Your task to perform on an android device: Clear all items from cart on amazon.com. Add "alienware aurora" to the cart on amazon.com, then select checkout. Image 0: 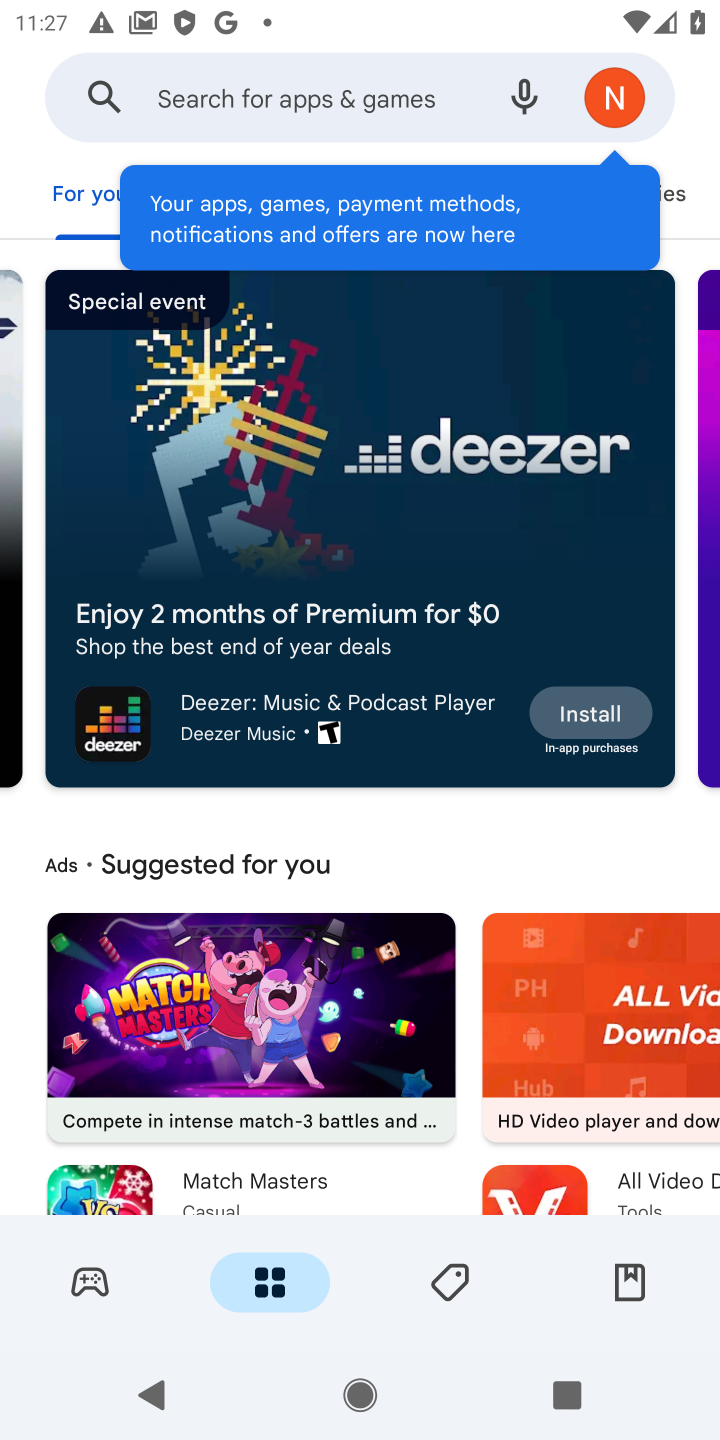
Step 0: press home button
Your task to perform on an android device: Clear all items from cart on amazon.com. Add "alienware aurora" to the cart on amazon.com, then select checkout. Image 1: 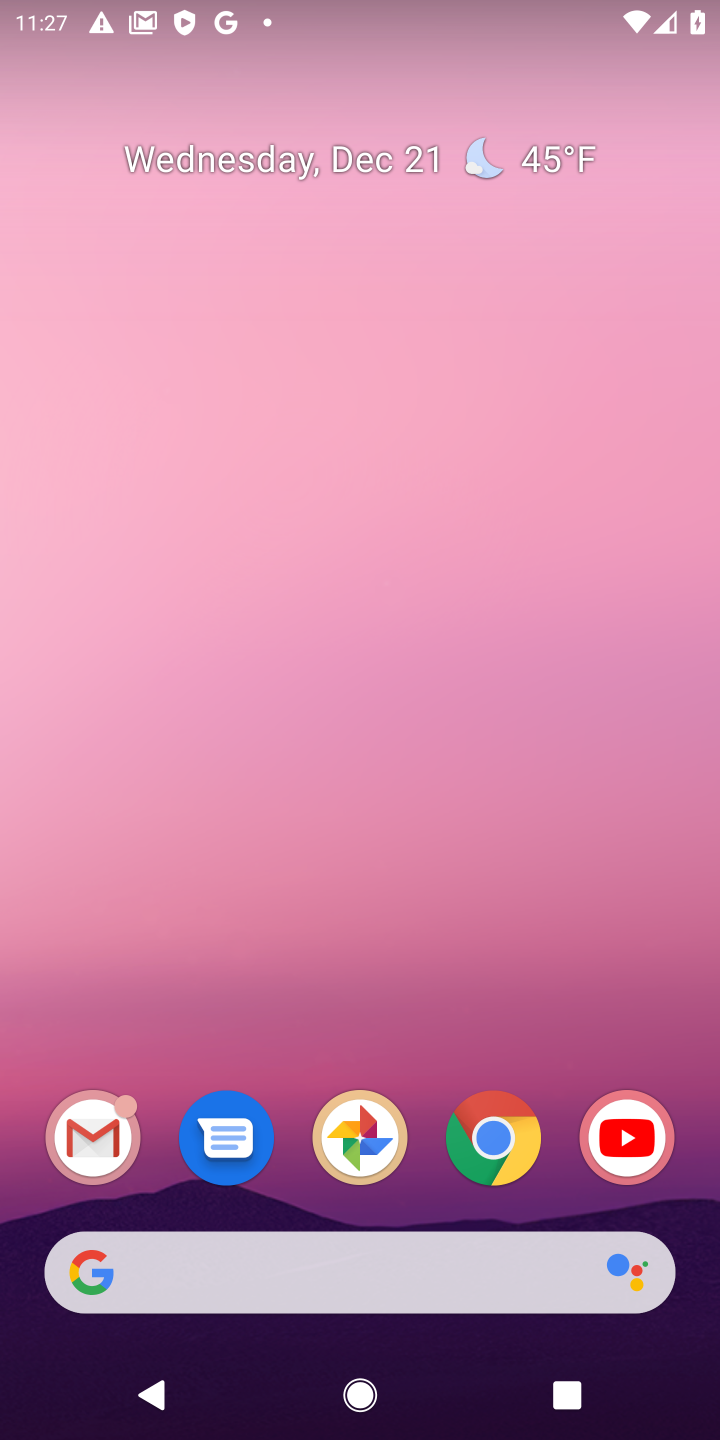
Step 1: click (508, 1137)
Your task to perform on an android device: Clear all items from cart on amazon.com. Add "alienware aurora" to the cart on amazon.com, then select checkout. Image 2: 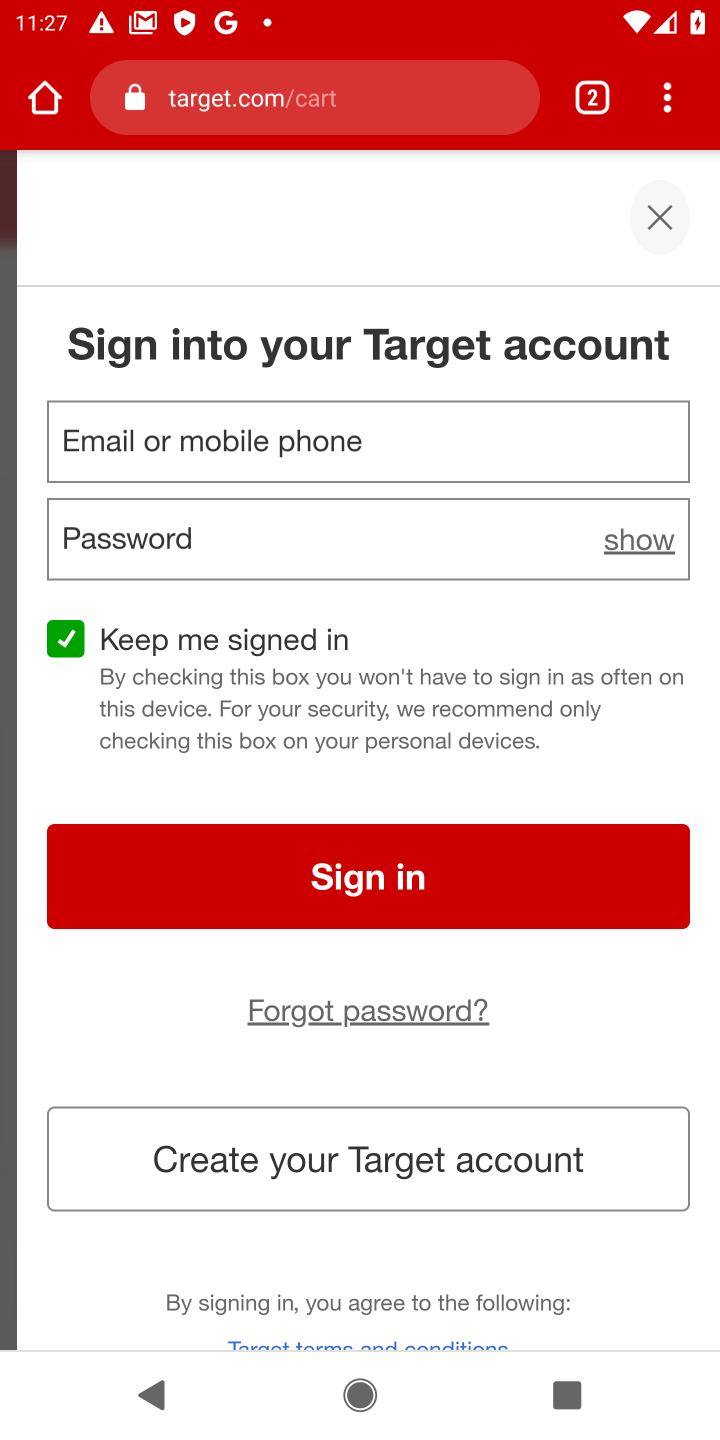
Step 2: click (242, 99)
Your task to perform on an android device: Clear all items from cart on amazon.com. Add "alienware aurora" to the cart on amazon.com, then select checkout. Image 3: 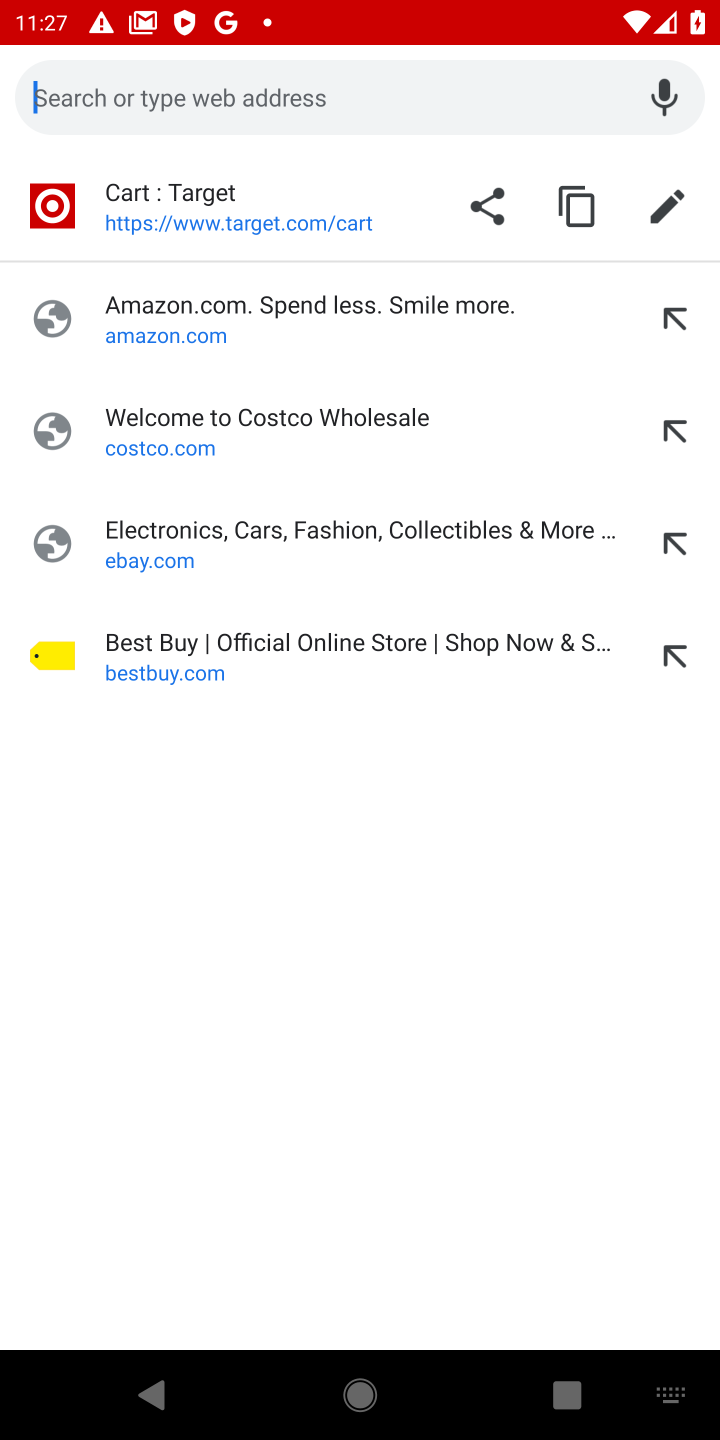
Step 3: click (187, 335)
Your task to perform on an android device: Clear all items from cart on amazon.com. Add "alienware aurora" to the cart on amazon.com, then select checkout. Image 4: 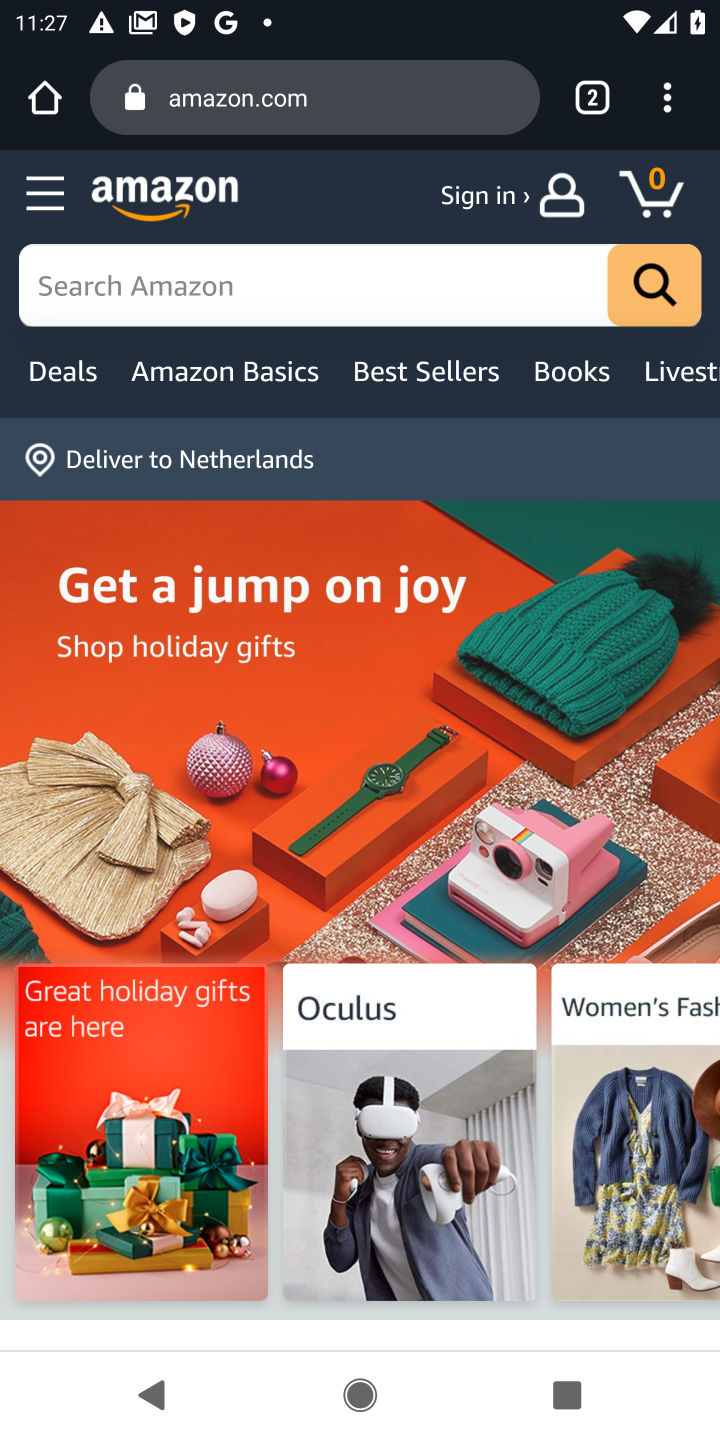
Step 4: click (662, 205)
Your task to perform on an android device: Clear all items from cart on amazon.com. Add "alienware aurora" to the cart on amazon.com, then select checkout. Image 5: 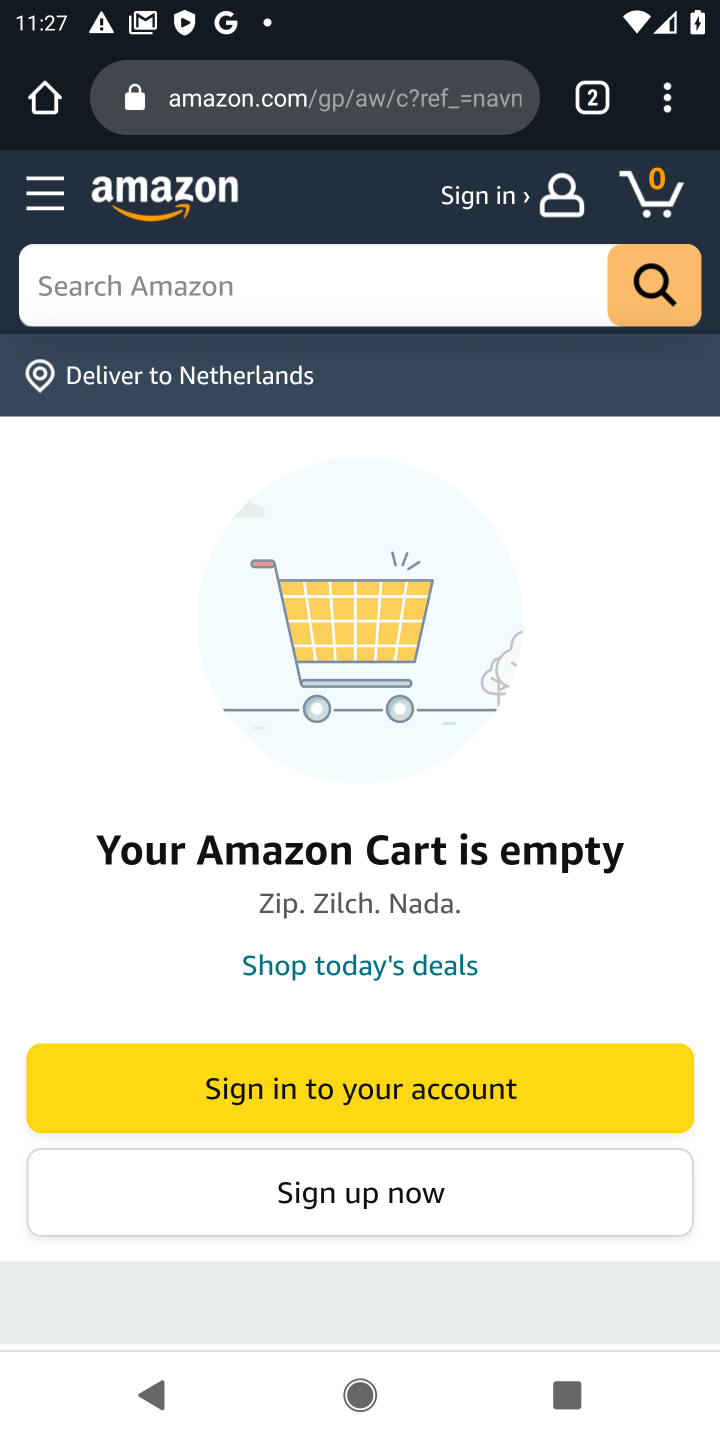
Step 5: click (178, 288)
Your task to perform on an android device: Clear all items from cart on amazon.com. Add "alienware aurora" to the cart on amazon.com, then select checkout. Image 6: 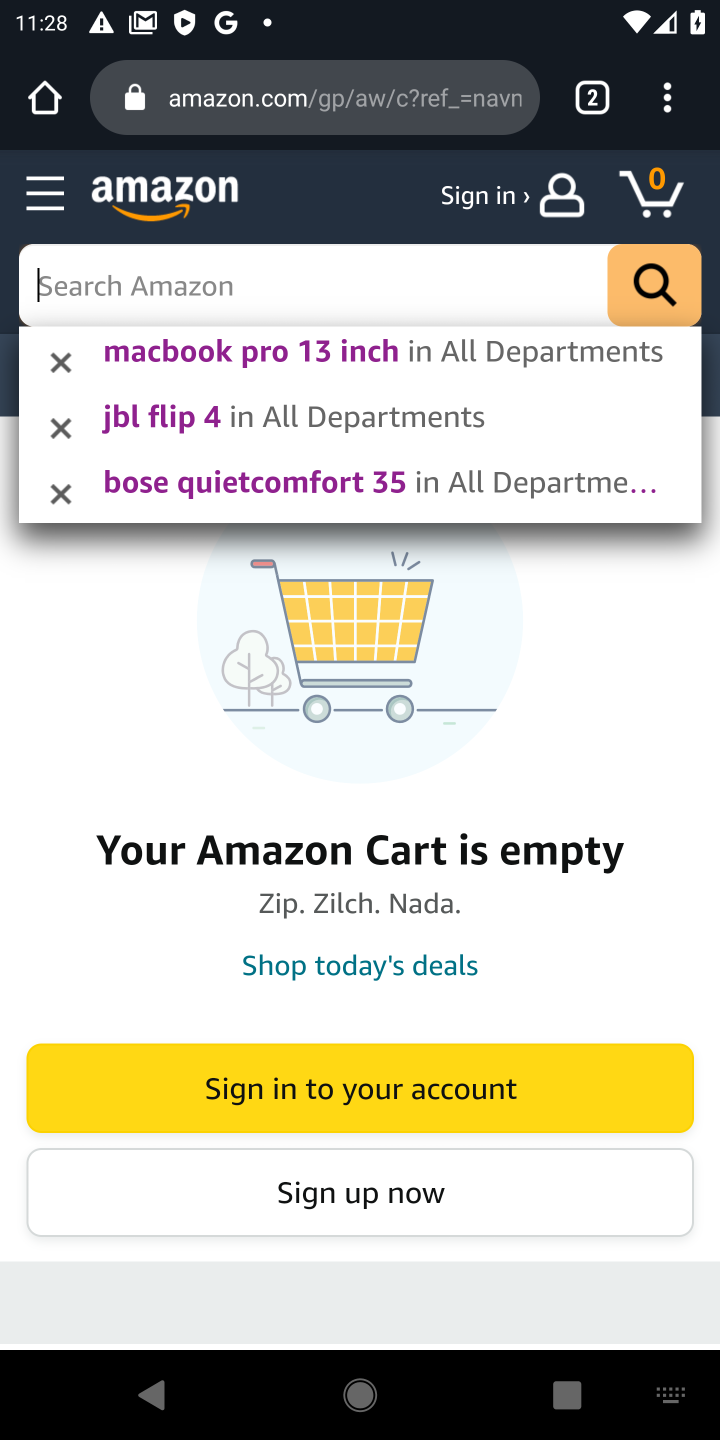
Step 6: type "alienware aurora"
Your task to perform on an android device: Clear all items from cart on amazon.com. Add "alienware aurora" to the cart on amazon.com, then select checkout. Image 7: 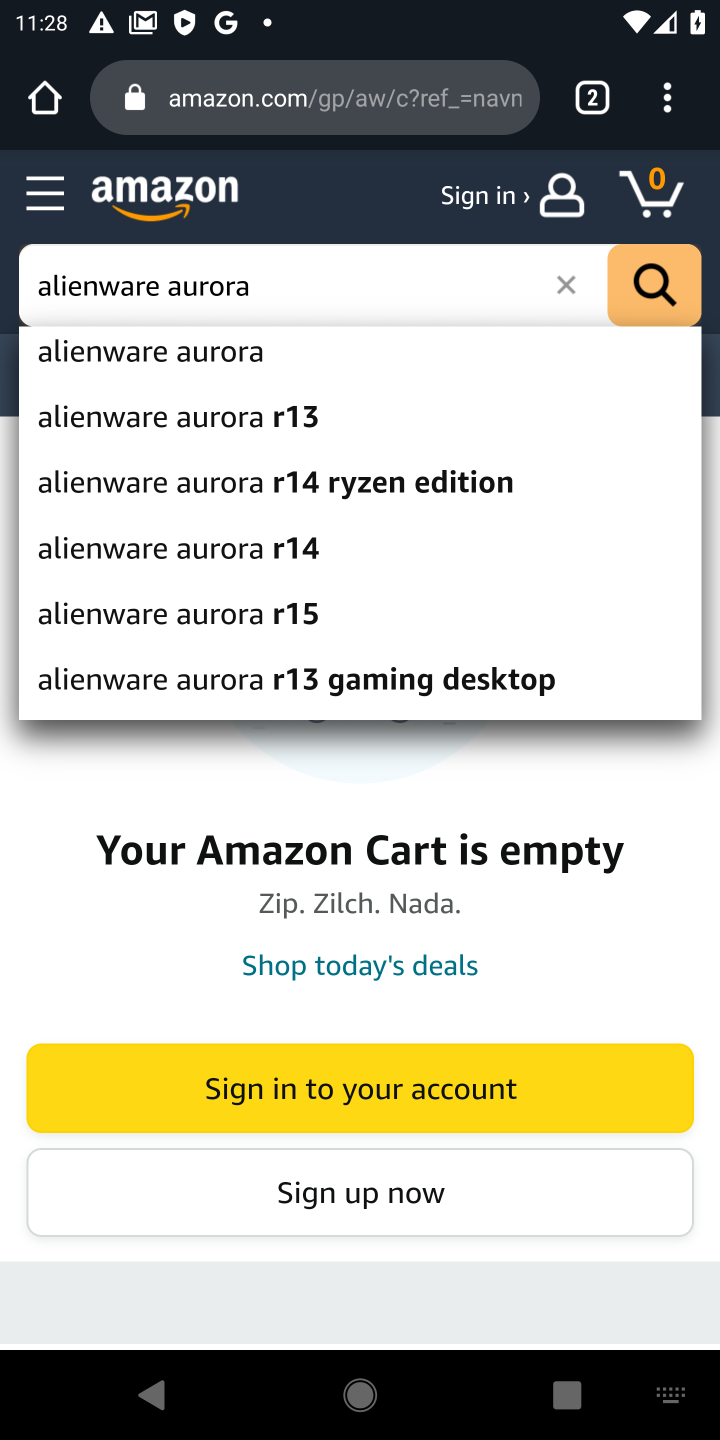
Step 7: click (173, 364)
Your task to perform on an android device: Clear all items from cart on amazon.com. Add "alienware aurora" to the cart on amazon.com, then select checkout. Image 8: 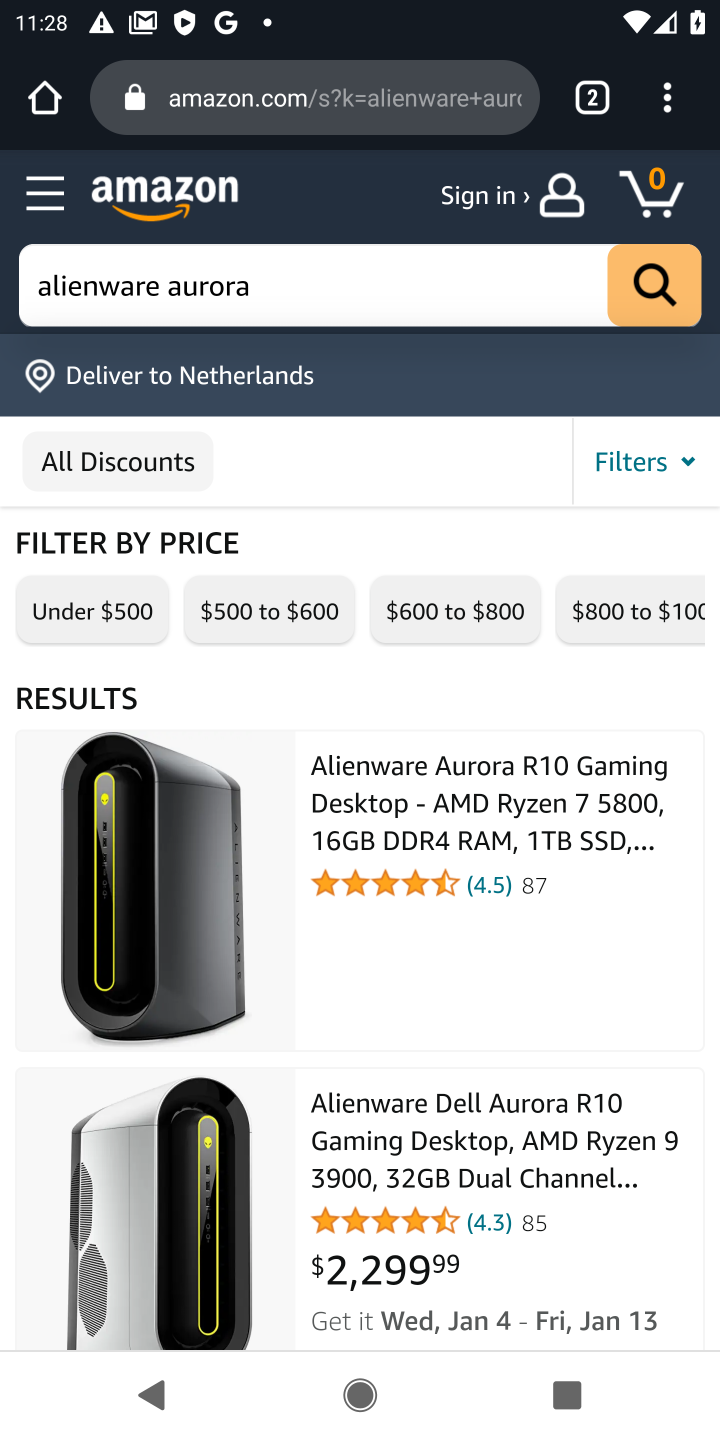
Step 8: drag from (375, 1005) to (382, 660)
Your task to perform on an android device: Clear all items from cart on amazon.com. Add "alienware aurora" to the cart on amazon.com, then select checkout. Image 9: 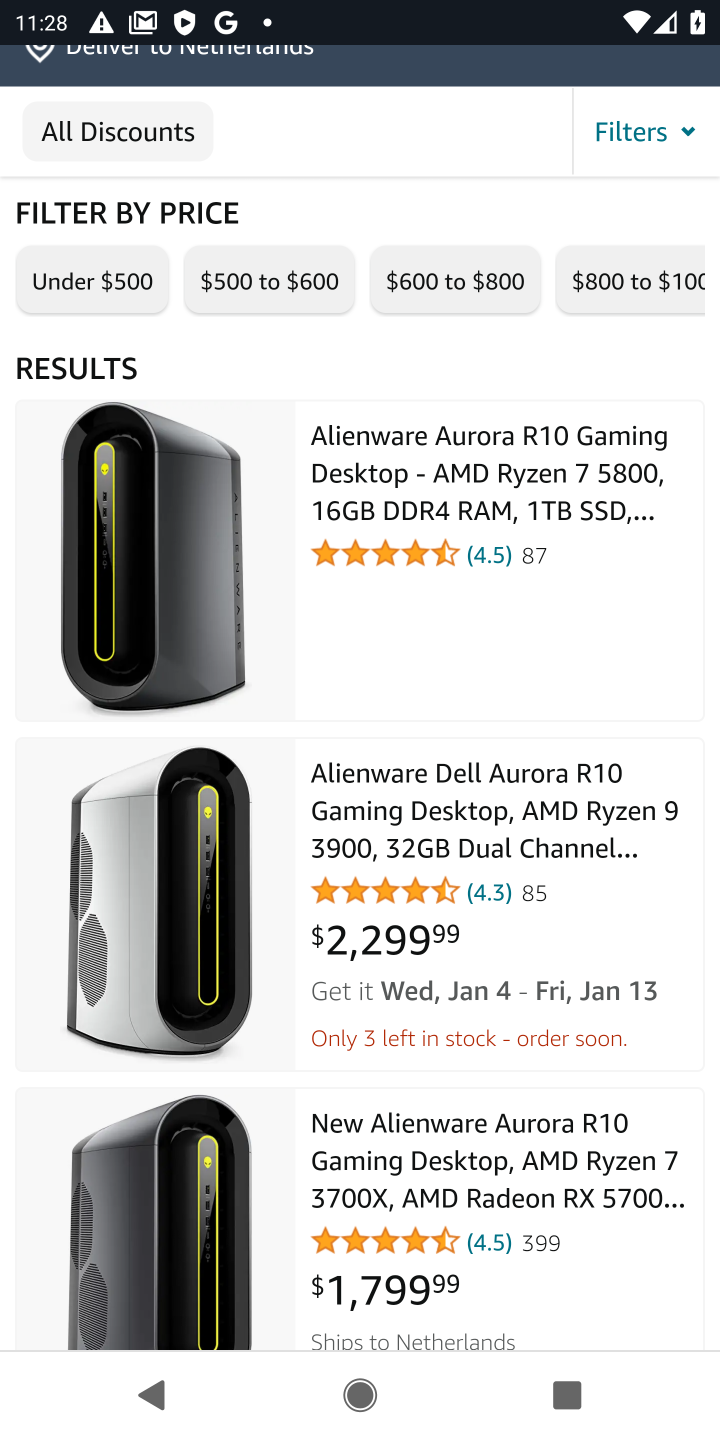
Step 9: drag from (375, 977) to (360, 694)
Your task to perform on an android device: Clear all items from cart on amazon.com. Add "alienware aurora" to the cart on amazon.com, then select checkout. Image 10: 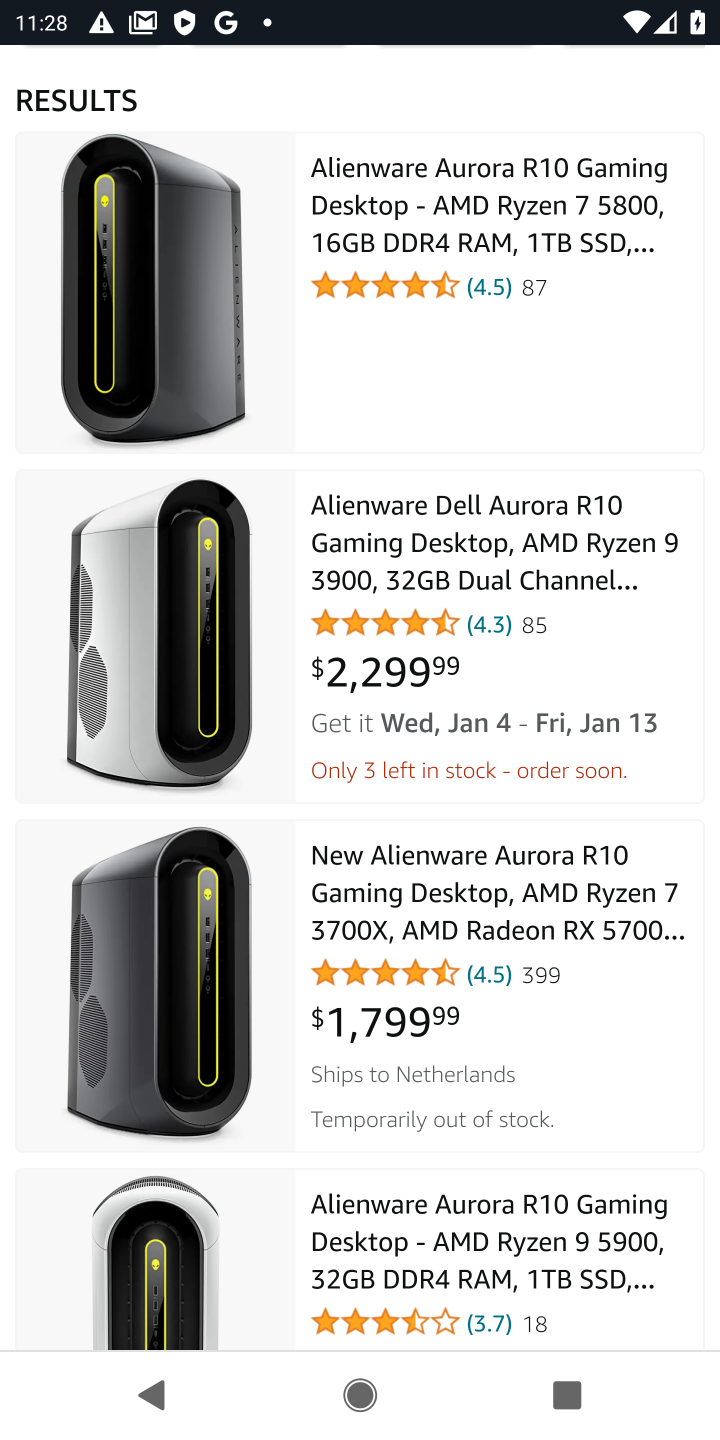
Step 10: click (385, 906)
Your task to perform on an android device: Clear all items from cart on amazon.com. Add "alienware aurora" to the cart on amazon.com, then select checkout. Image 11: 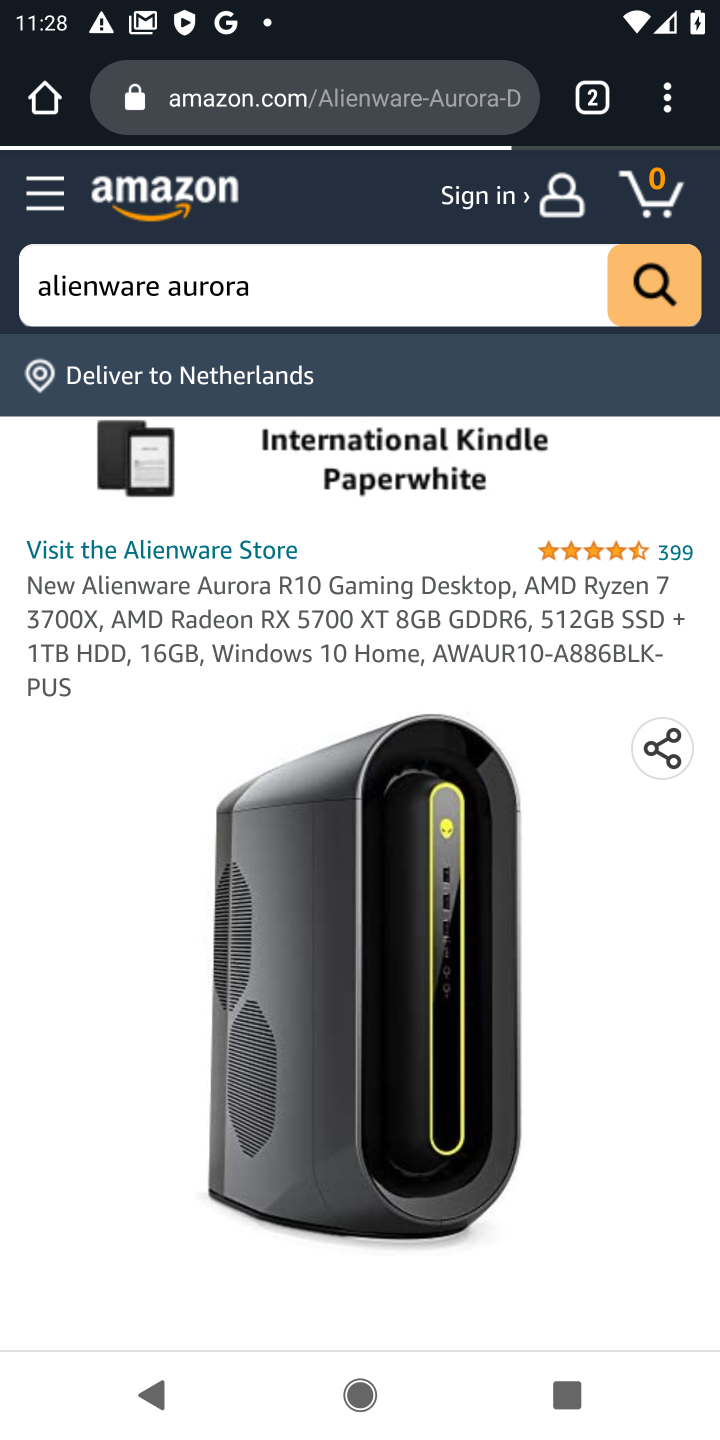
Step 11: drag from (355, 978) to (397, 616)
Your task to perform on an android device: Clear all items from cart on amazon.com. Add "alienware aurora" to the cart on amazon.com, then select checkout. Image 12: 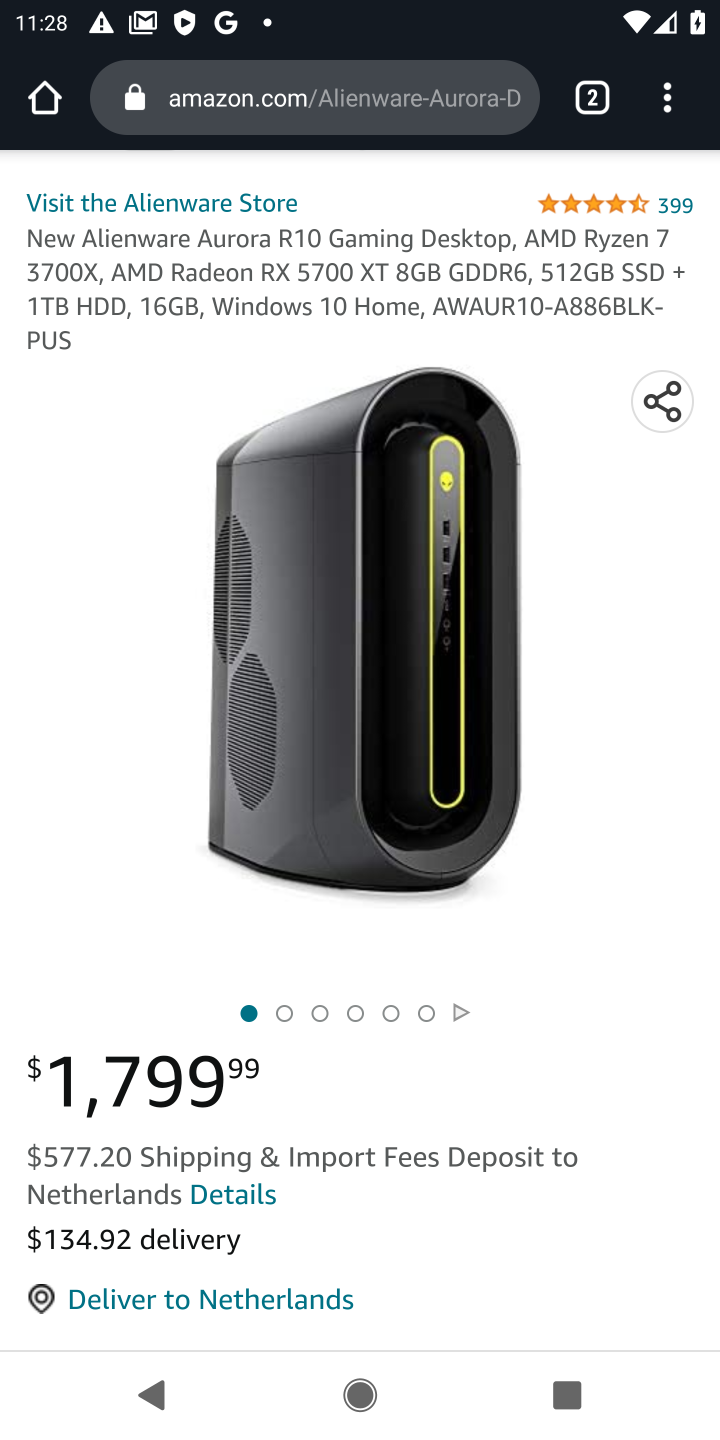
Step 12: drag from (391, 986) to (409, 578)
Your task to perform on an android device: Clear all items from cart on amazon.com. Add "alienware aurora" to the cart on amazon.com, then select checkout. Image 13: 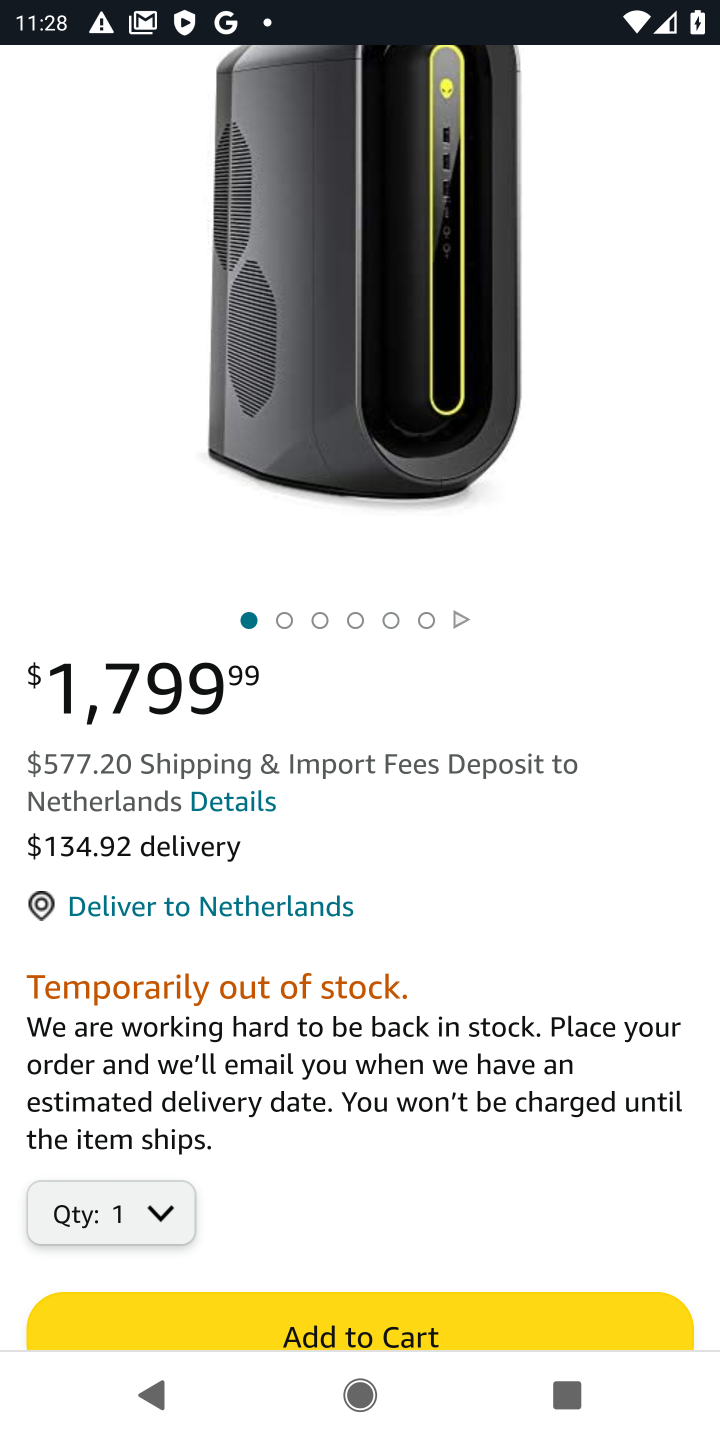
Step 13: drag from (348, 1179) to (346, 735)
Your task to perform on an android device: Clear all items from cart on amazon.com. Add "alienware aurora" to the cart on amazon.com, then select checkout. Image 14: 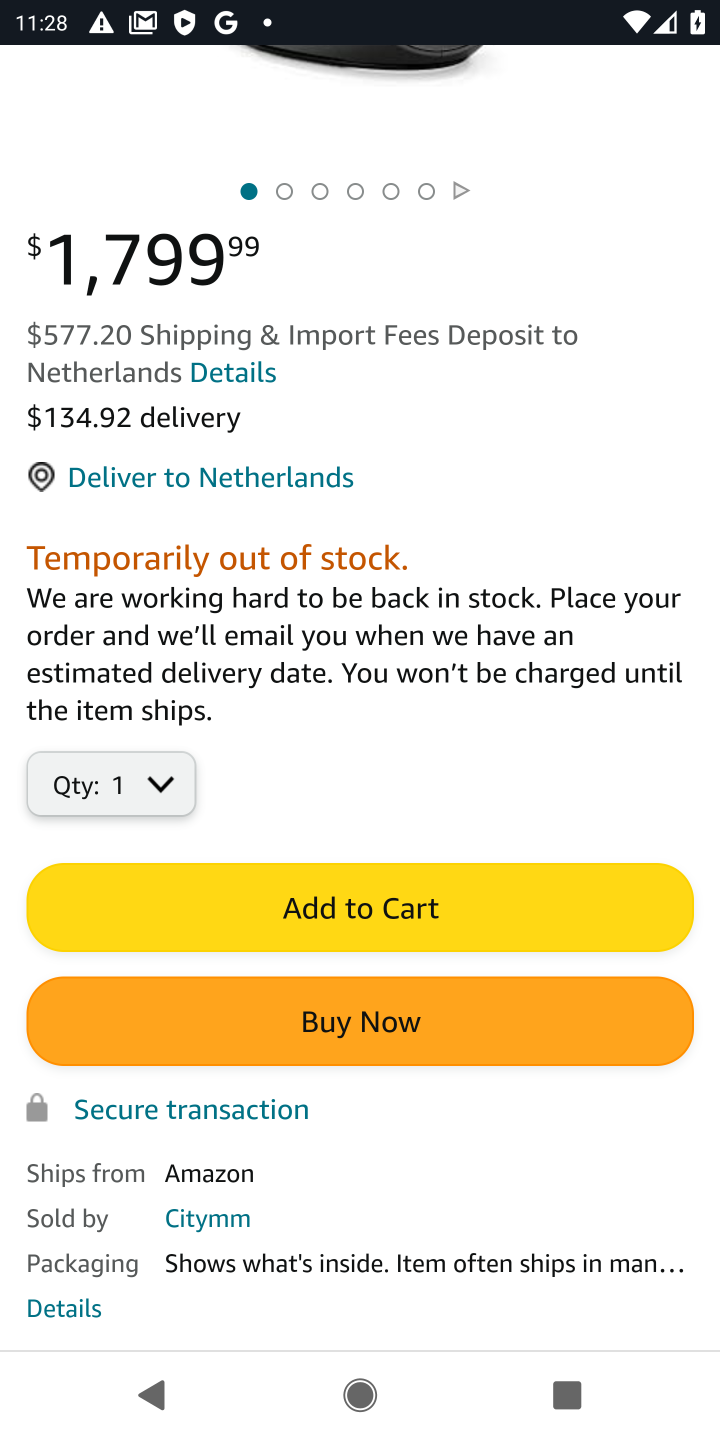
Step 14: click (318, 907)
Your task to perform on an android device: Clear all items from cart on amazon.com. Add "alienware aurora" to the cart on amazon.com, then select checkout. Image 15: 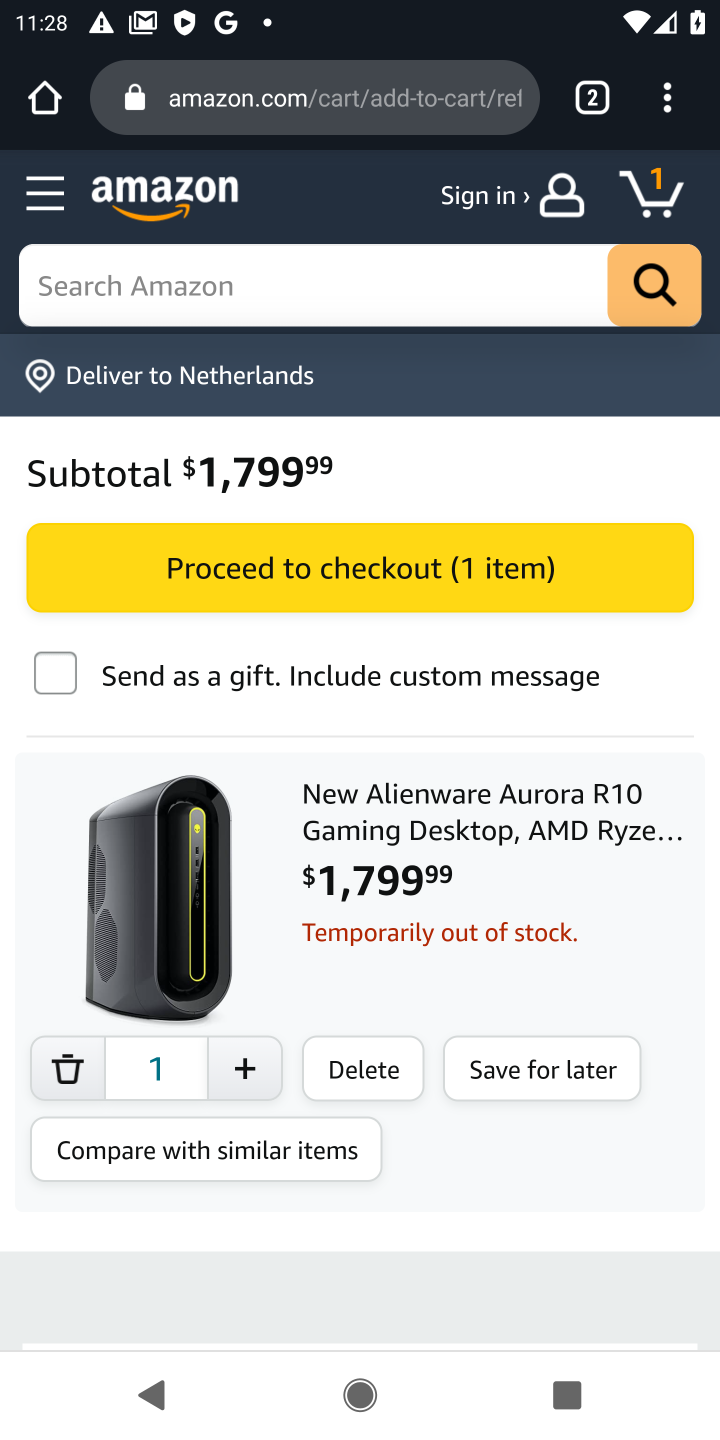
Step 15: click (326, 575)
Your task to perform on an android device: Clear all items from cart on amazon.com. Add "alienware aurora" to the cart on amazon.com, then select checkout. Image 16: 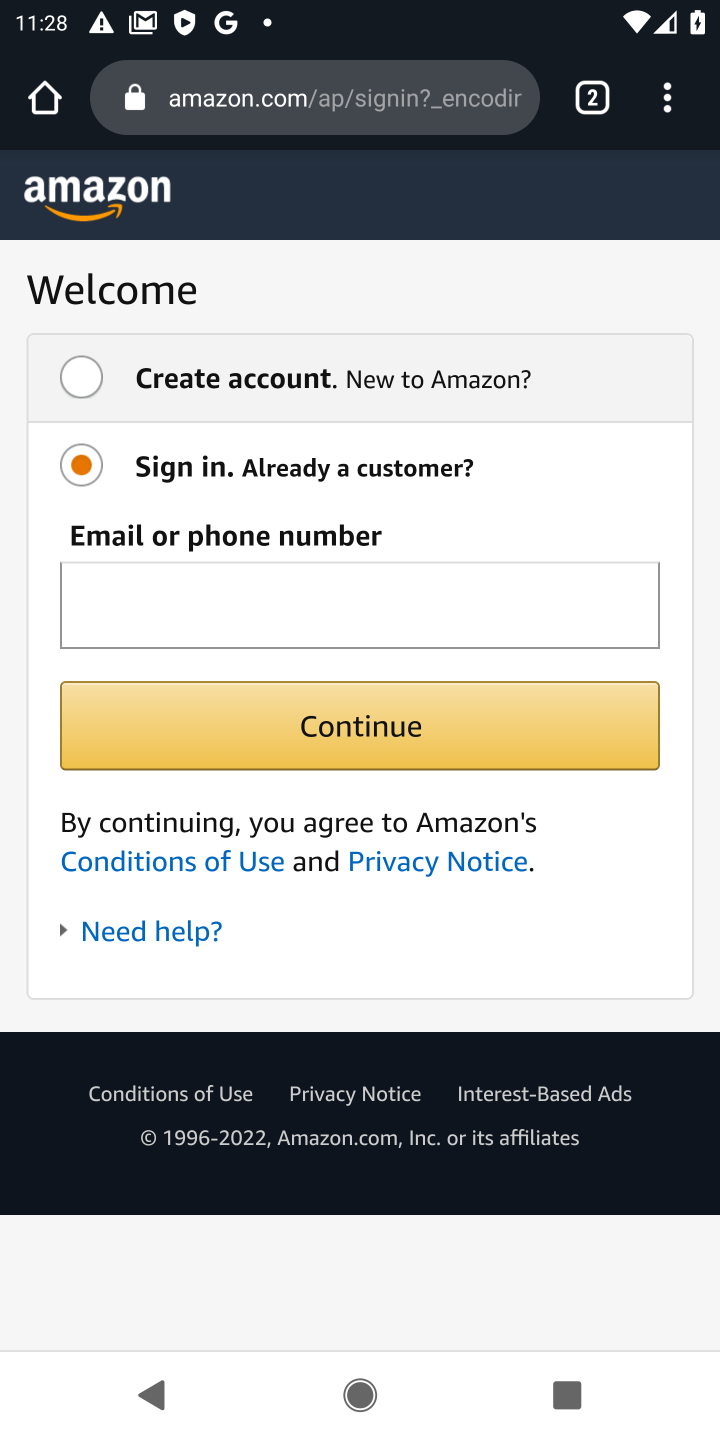
Step 16: task complete